Your task to perform on an android device: Open privacy settings Image 0: 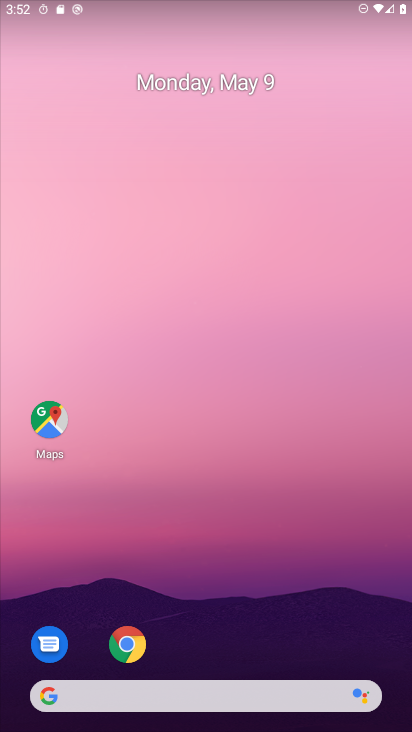
Step 0: drag from (206, 668) to (219, 127)
Your task to perform on an android device: Open privacy settings Image 1: 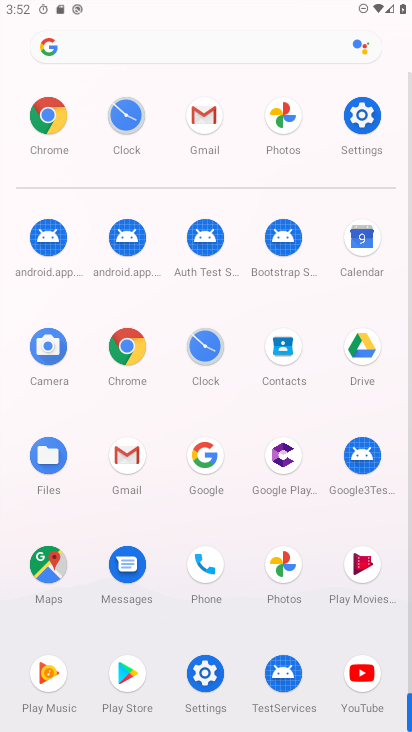
Step 1: click (371, 127)
Your task to perform on an android device: Open privacy settings Image 2: 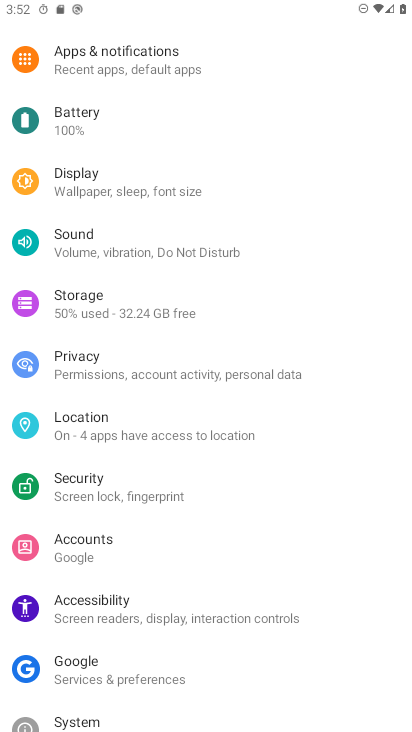
Step 2: click (88, 380)
Your task to perform on an android device: Open privacy settings Image 3: 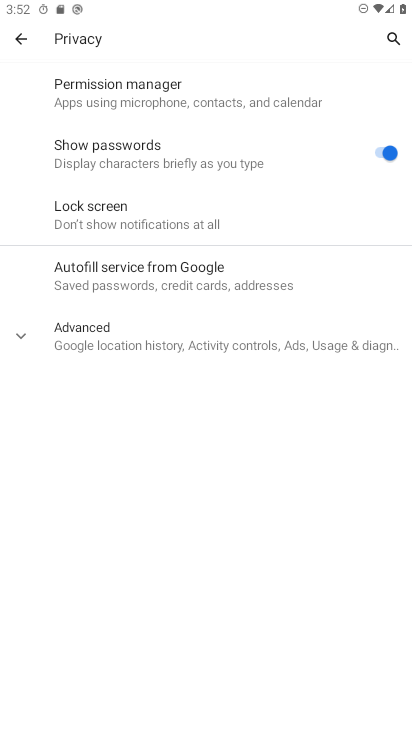
Step 3: task complete